Your task to perform on an android device: Do I have any events today? Image 0: 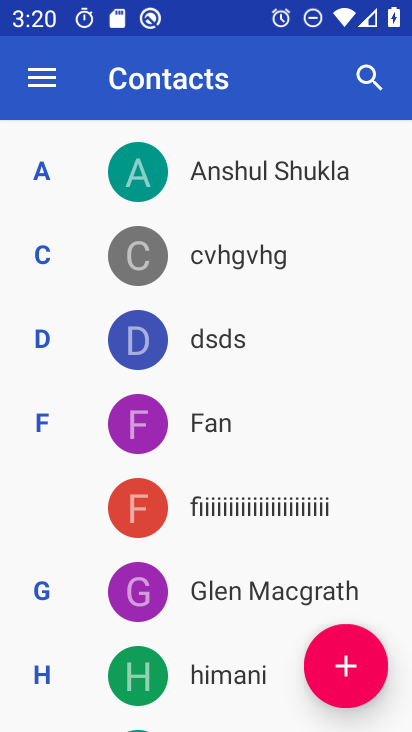
Step 0: press home button
Your task to perform on an android device: Do I have any events today? Image 1: 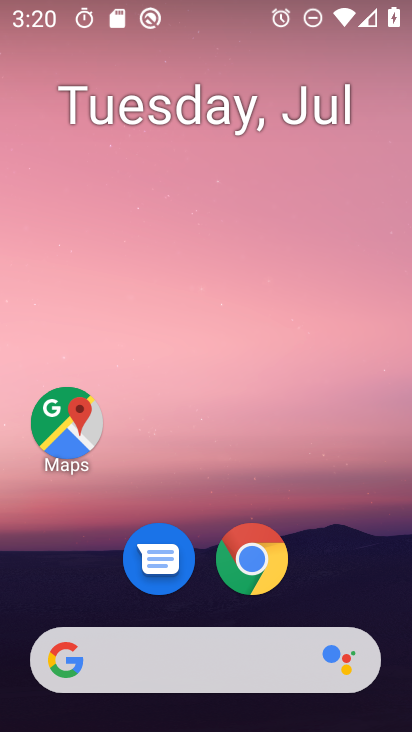
Step 1: drag from (344, 529) to (372, 106)
Your task to perform on an android device: Do I have any events today? Image 2: 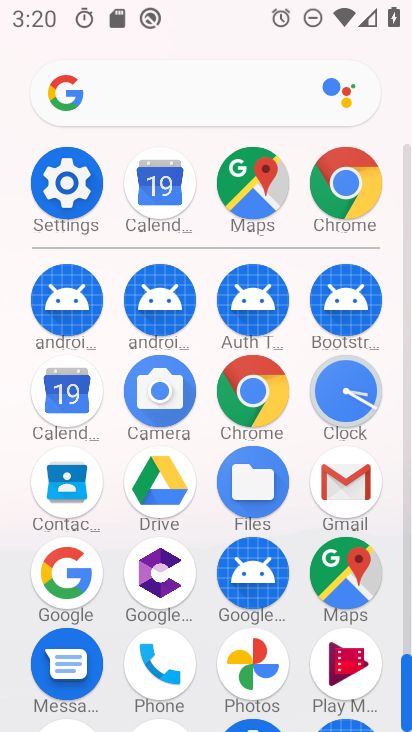
Step 2: click (67, 397)
Your task to perform on an android device: Do I have any events today? Image 3: 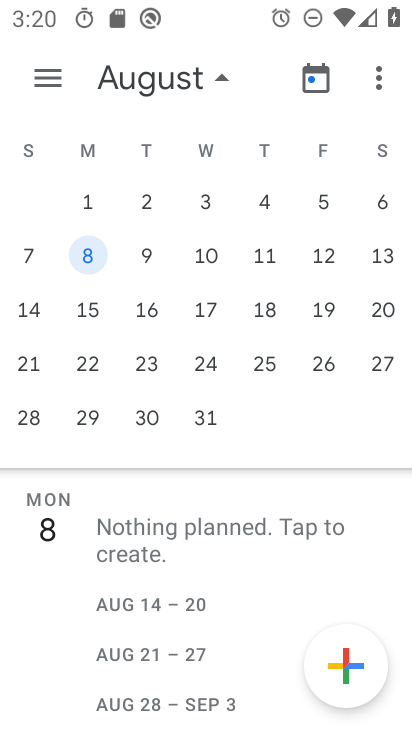
Step 3: drag from (245, 525) to (279, 190)
Your task to perform on an android device: Do I have any events today? Image 4: 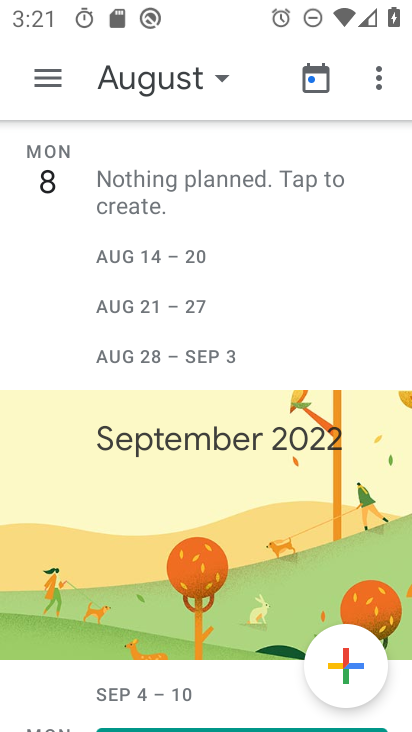
Step 4: drag from (272, 170) to (258, 330)
Your task to perform on an android device: Do I have any events today? Image 5: 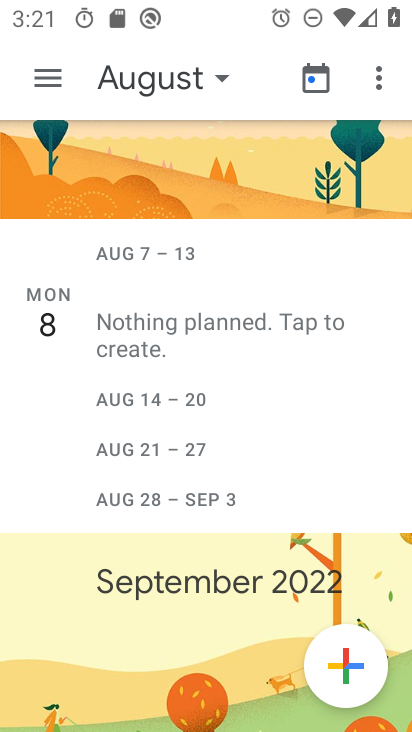
Step 5: drag from (269, 159) to (267, 410)
Your task to perform on an android device: Do I have any events today? Image 6: 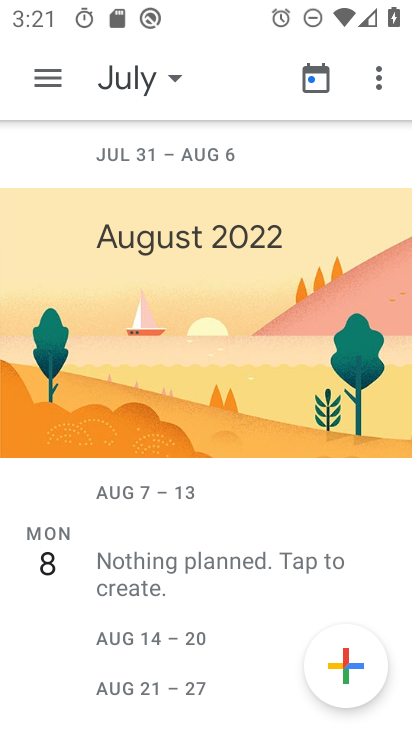
Step 6: drag from (211, 177) to (210, 351)
Your task to perform on an android device: Do I have any events today? Image 7: 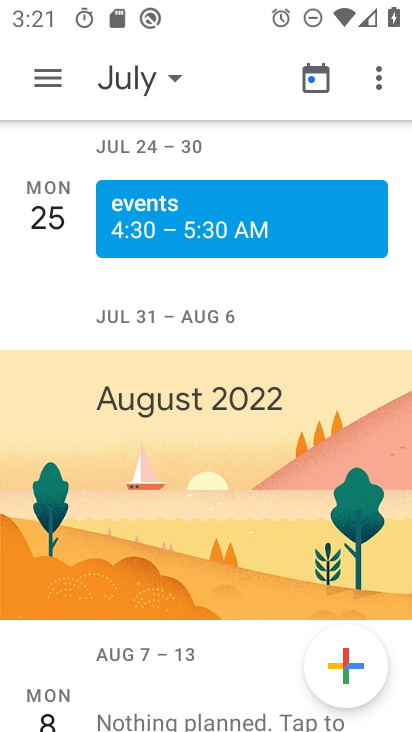
Step 7: drag from (221, 284) to (235, 462)
Your task to perform on an android device: Do I have any events today? Image 8: 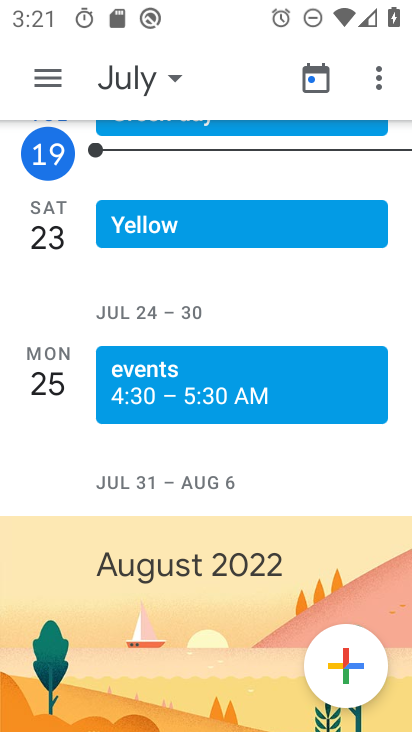
Step 8: drag from (214, 188) to (214, 358)
Your task to perform on an android device: Do I have any events today? Image 9: 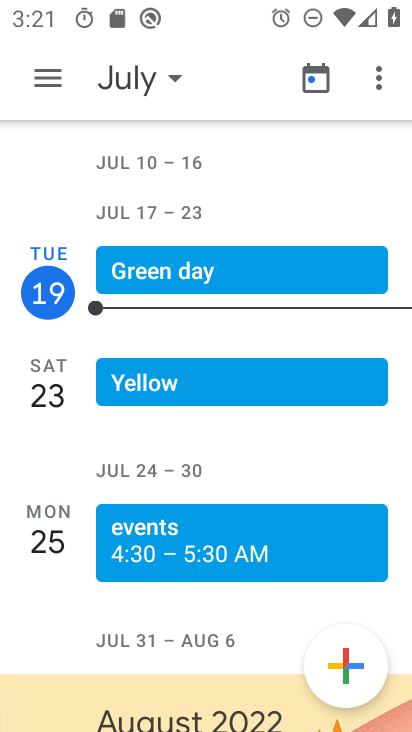
Step 9: click (198, 260)
Your task to perform on an android device: Do I have any events today? Image 10: 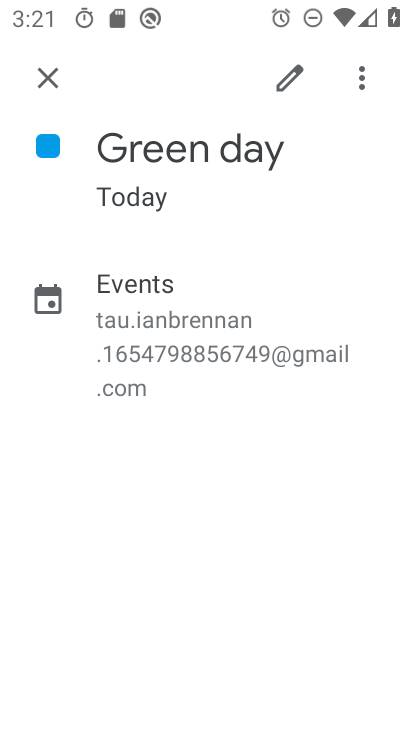
Step 10: task complete